Your task to perform on an android device: Search for vegetarian restaurants on Maps Image 0: 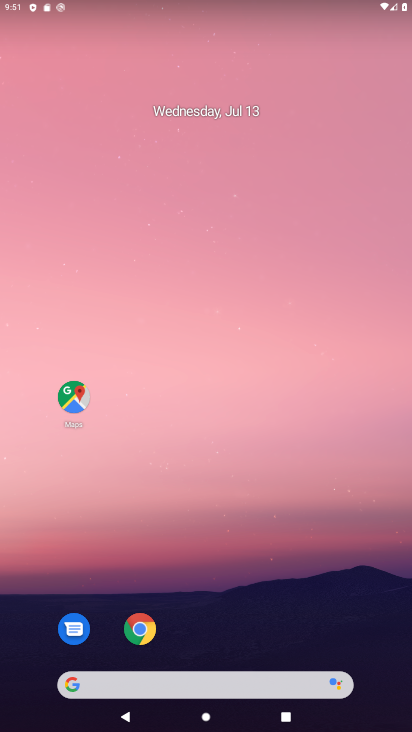
Step 0: press home button
Your task to perform on an android device: Search for vegetarian restaurants on Maps Image 1: 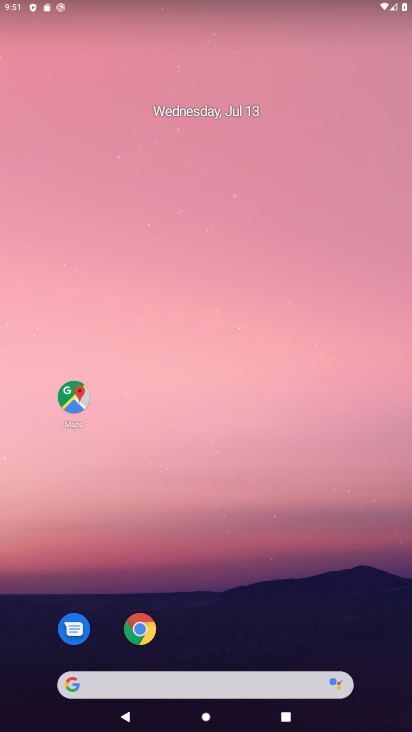
Step 1: click (66, 391)
Your task to perform on an android device: Search for vegetarian restaurants on Maps Image 2: 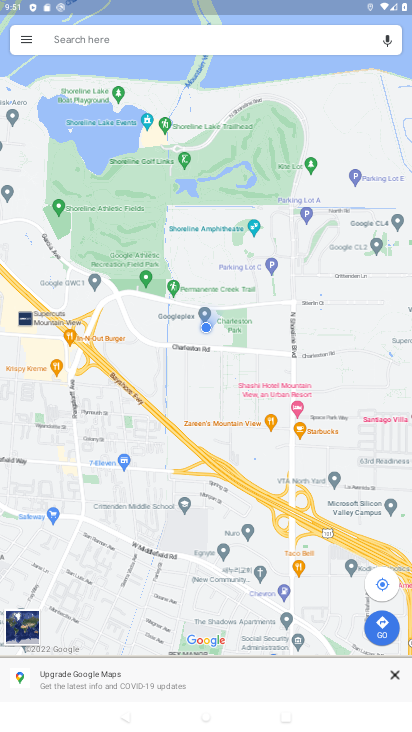
Step 2: click (122, 39)
Your task to perform on an android device: Search for vegetarian restaurants on Maps Image 3: 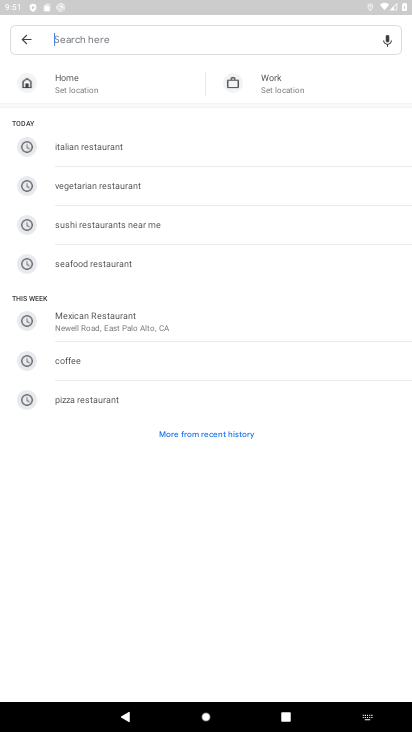
Step 3: click (129, 188)
Your task to perform on an android device: Search for vegetarian restaurants on Maps Image 4: 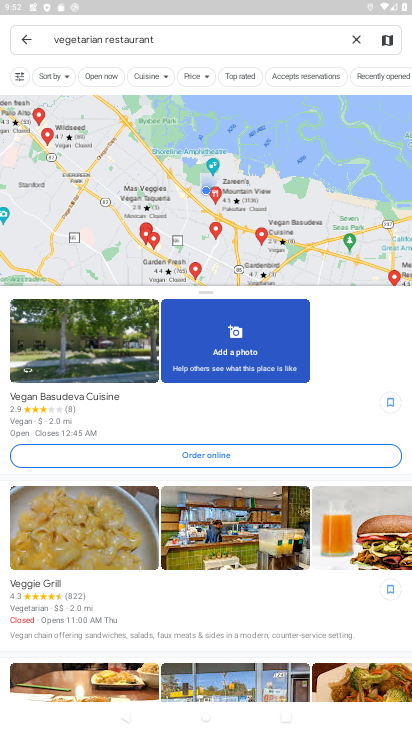
Step 4: task complete